Your task to perform on an android device: open a new tab in the chrome app Image 0: 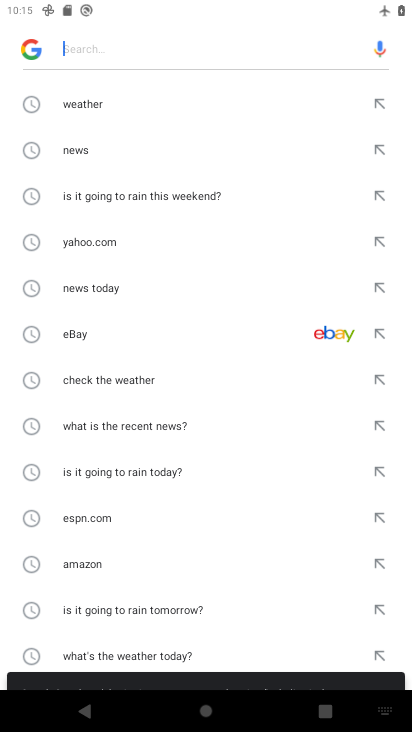
Step 0: press back button
Your task to perform on an android device: open a new tab in the chrome app Image 1: 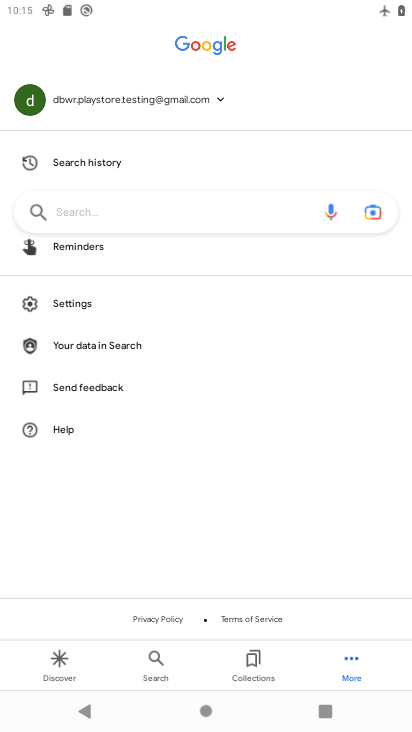
Step 1: press home button
Your task to perform on an android device: open a new tab in the chrome app Image 2: 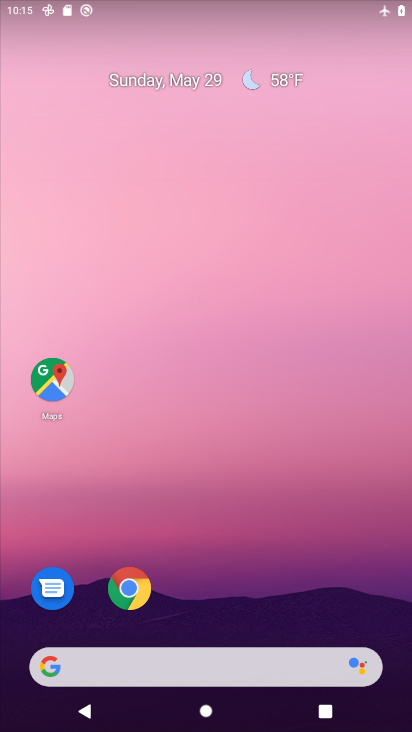
Step 2: drag from (249, 653) to (192, 143)
Your task to perform on an android device: open a new tab in the chrome app Image 3: 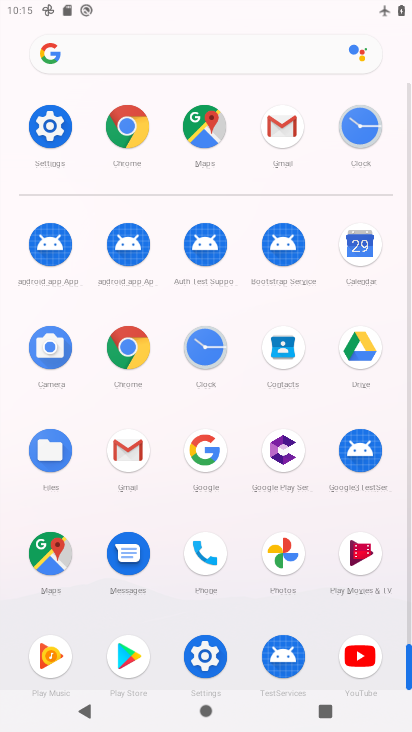
Step 3: click (125, 127)
Your task to perform on an android device: open a new tab in the chrome app Image 4: 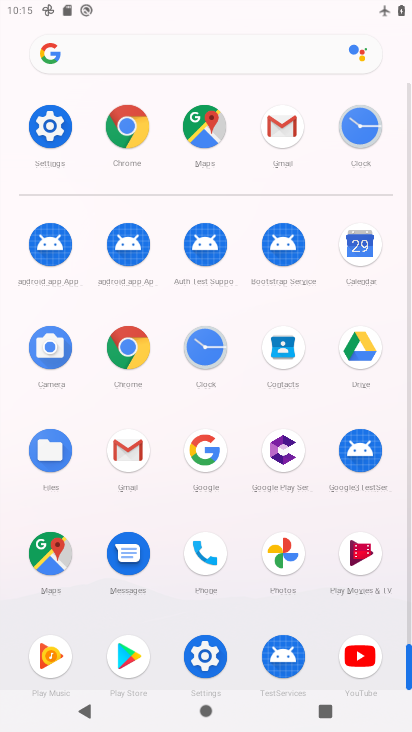
Step 4: click (125, 127)
Your task to perform on an android device: open a new tab in the chrome app Image 5: 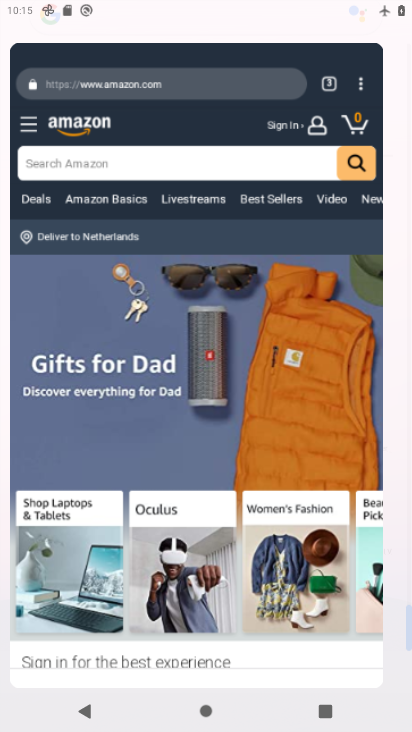
Step 5: click (125, 127)
Your task to perform on an android device: open a new tab in the chrome app Image 6: 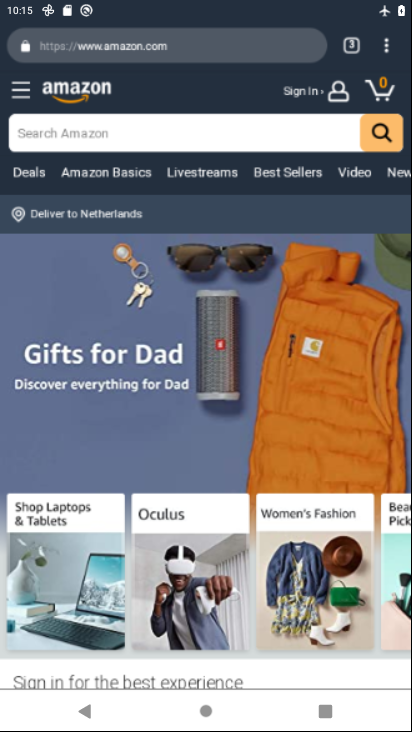
Step 6: task complete